Your task to perform on an android device: Show me popular videos on Youtube Image 0: 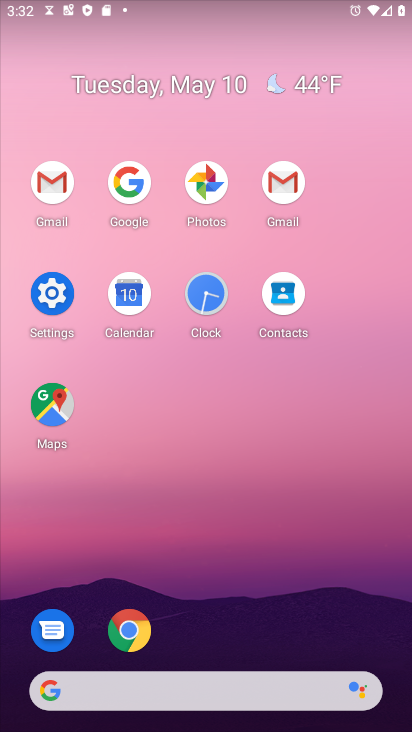
Step 0: drag from (265, 362) to (266, 173)
Your task to perform on an android device: Show me popular videos on Youtube Image 1: 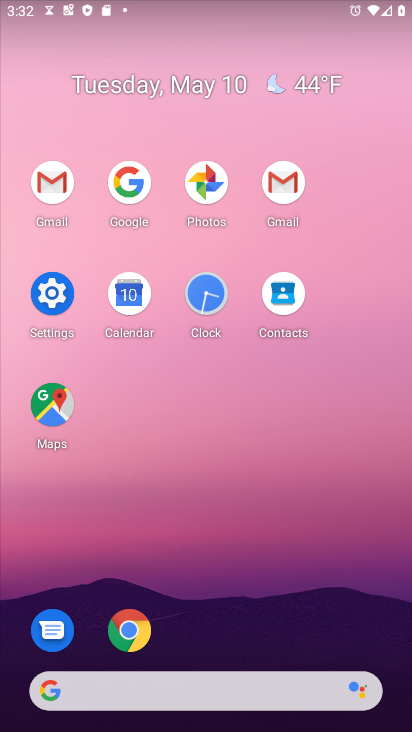
Step 1: drag from (257, 626) to (294, 106)
Your task to perform on an android device: Show me popular videos on Youtube Image 2: 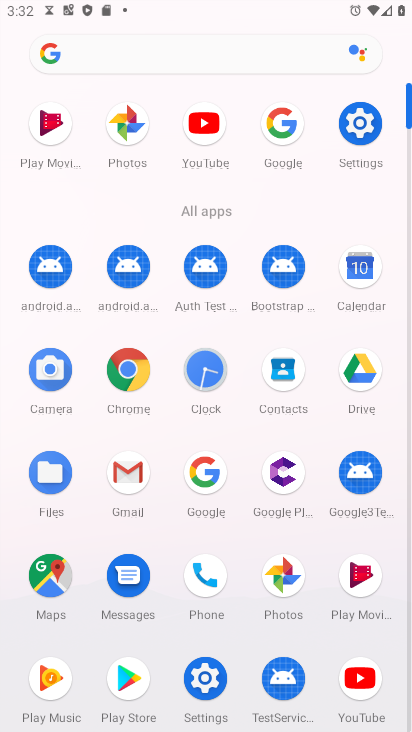
Step 2: click (217, 119)
Your task to perform on an android device: Show me popular videos on Youtube Image 3: 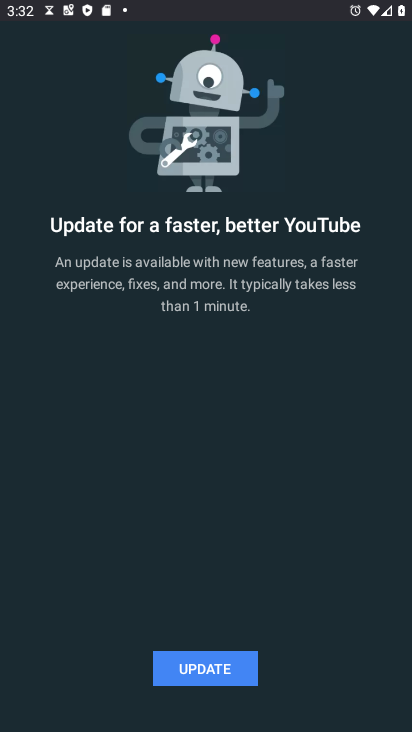
Step 3: click (230, 655)
Your task to perform on an android device: Show me popular videos on Youtube Image 4: 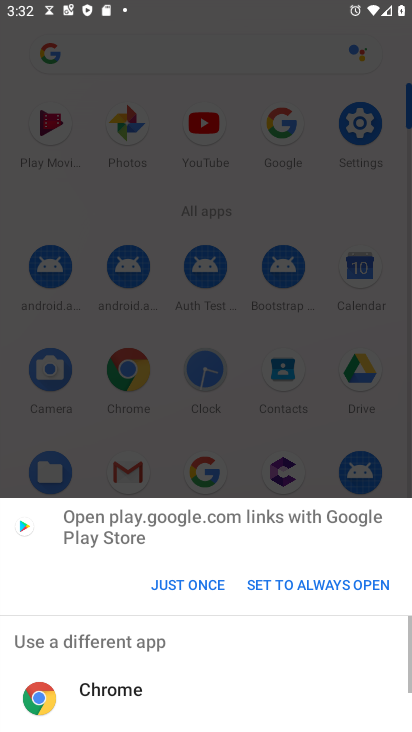
Step 4: drag from (179, 691) to (197, 465)
Your task to perform on an android device: Show me popular videos on Youtube Image 5: 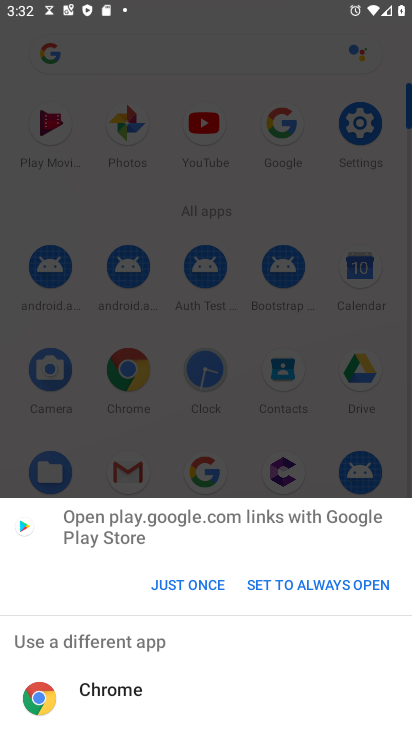
Step 5: click (110, 685)
Your task to perform on an android device: Show me popular videos on Youtube Image 6: 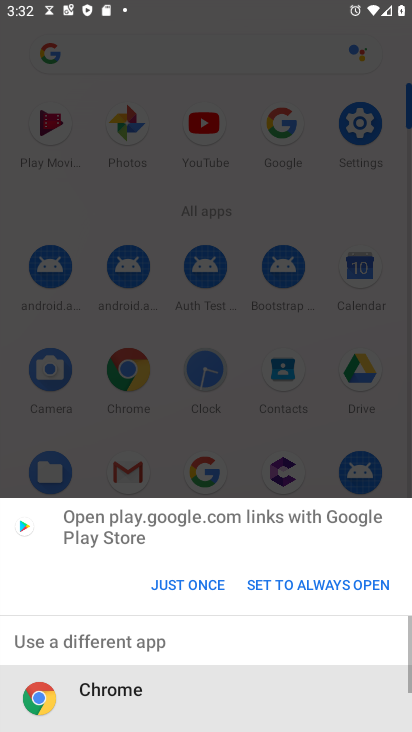
Step 6: click (110, 685)
Your task to perform on an android device: Show me popular videos on Youtube Image 7: 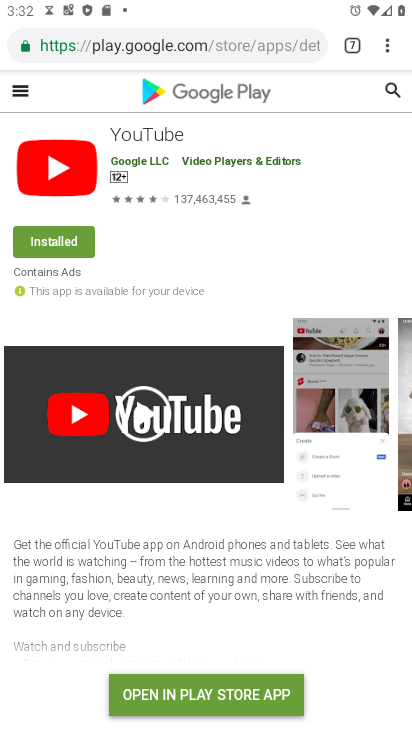
Step 7: click (246, 700)
Your task to perform on an android device: Show me popular videos on Youtube Image 8: 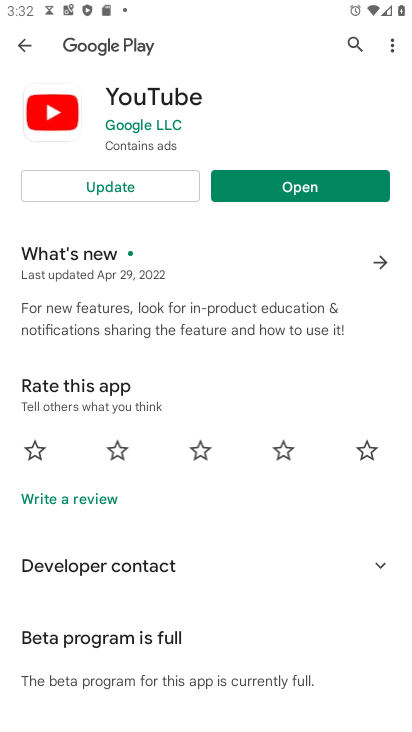
Step 8: click (108, 192)
Your task to perform on an android device: Show me popular videos on Youtube Image 9: 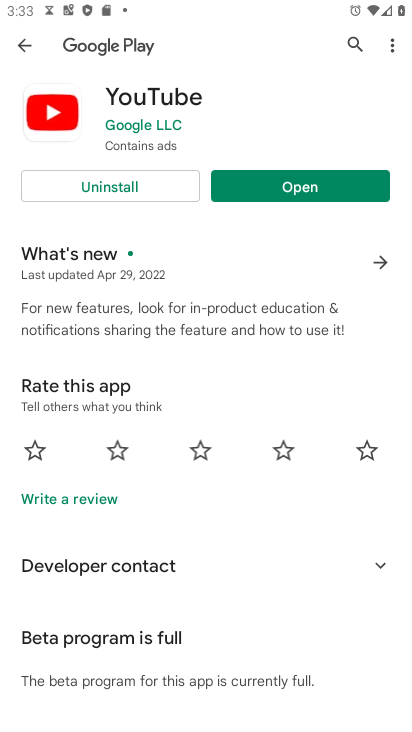
Step 9: click (304, 166)
Your task to perform on an android device: Show me popular videos on Youtube Image 10: 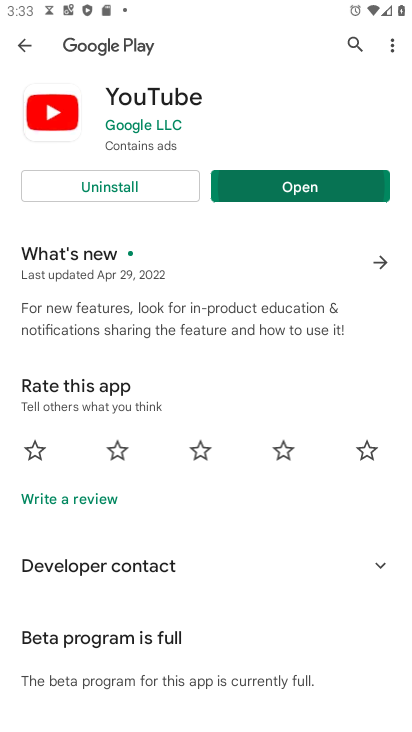
Step 10: click (304, 187)
Your task to perform on an android device: Show me popular videos on Youtube Image 11: 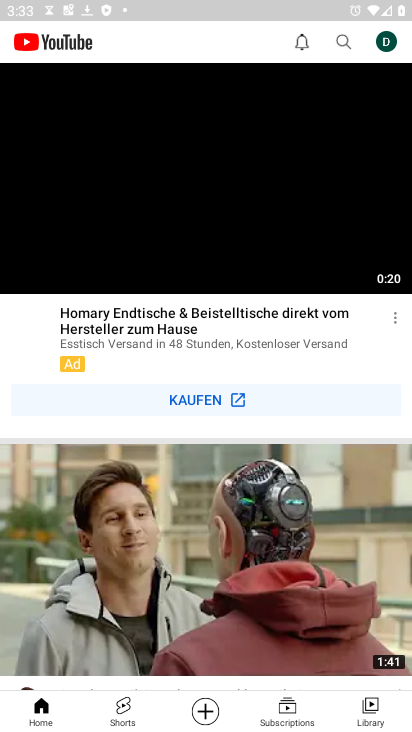
Step 11: task complete